Your task to perform on an android device: change timer sound Image 0: 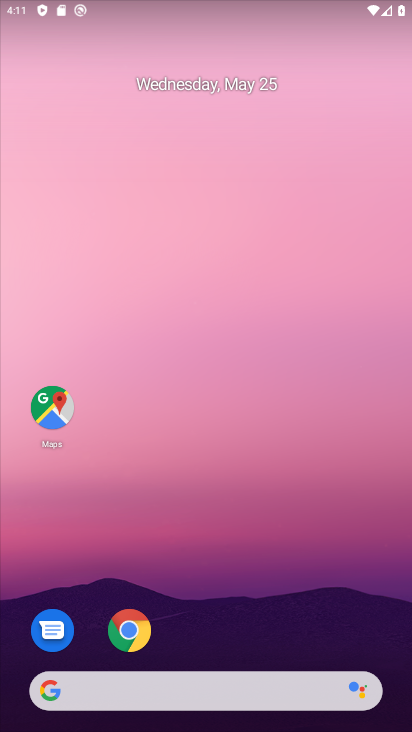
Step 0: drag from (248, 607) to (265, 51)
Your task to perform on an android device: change timer sound Image 1: 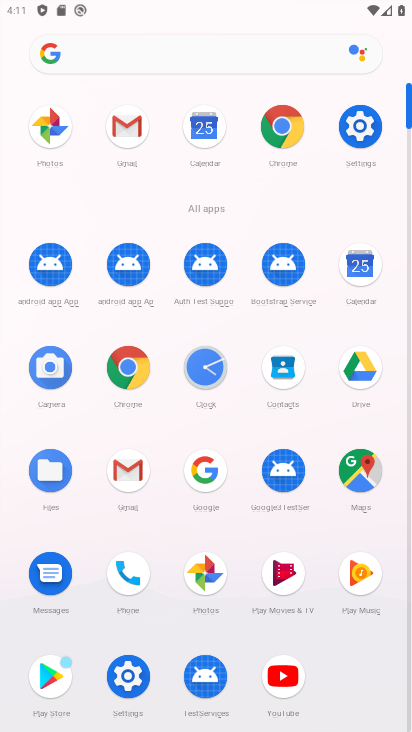
Step 1: click (214, 366)
Your task to perform on an android device: change timer sound Image 2: 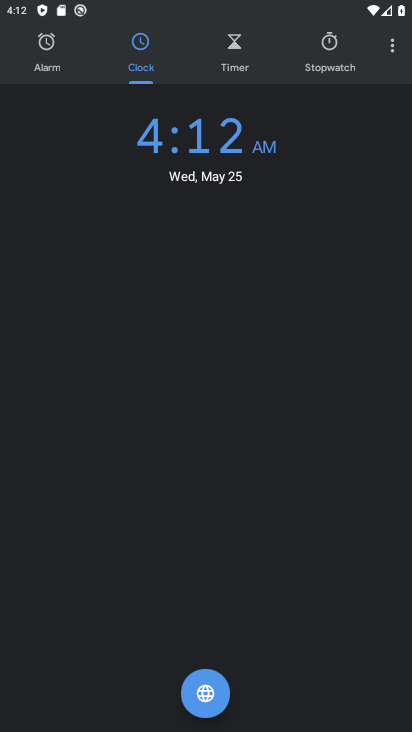
Step 2: click (388, 40)
Your task to perform on an android device: change timer sound Image 3: 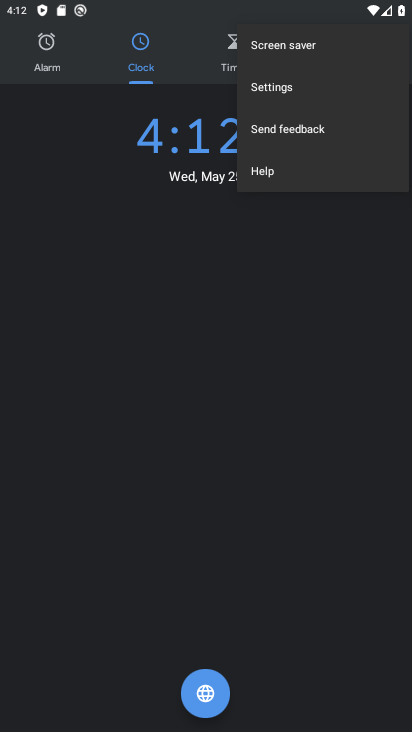
Step 3: click (275, 88)
Your task to perform on an android device: change timer sound Image 4: 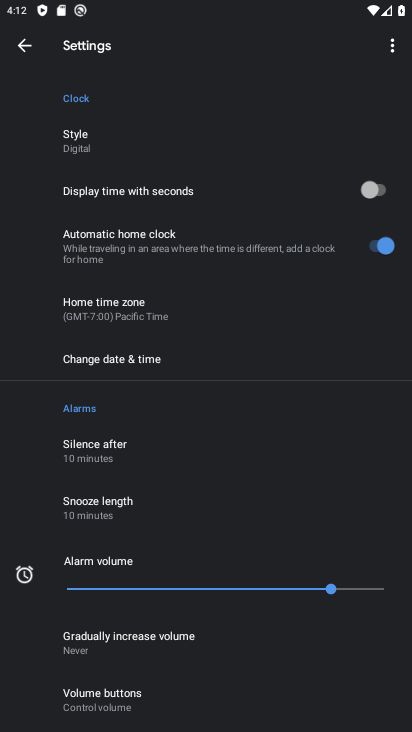
Step 4: drag from (138, 634) to (229, 259)
Your task to perform on an android device: change timer sound Image 5: 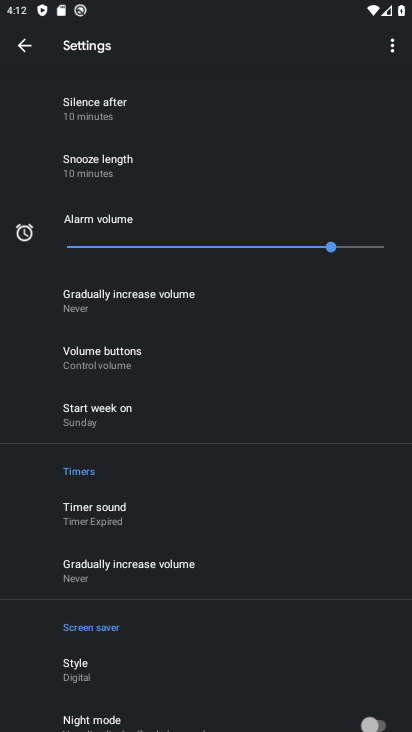
Step 5: click (105, 516)
Your task to perform on an android device: change timer sound Image 6: 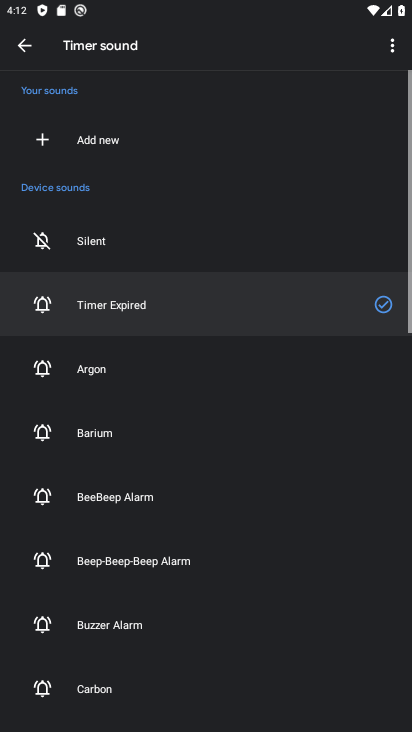
Step 6: click (71, 359)
Your task to perform on an android device: change timer sound Image 7: 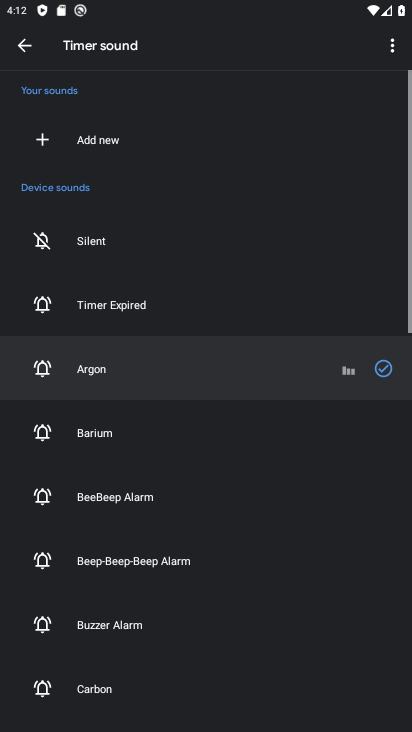
Step 7: task complete